Your task to perform on an android device: open the mobile data screen to see how much data has been used Image 0: 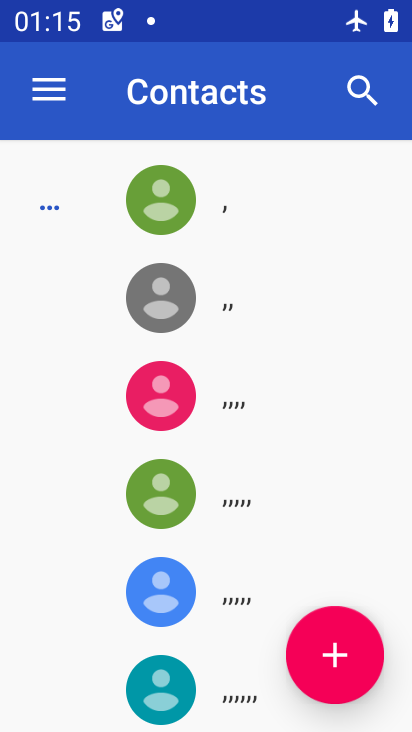
Step 0: press home button
Your task to perform on an android device: open the mobile data screen to see how much data has been used Image 1: 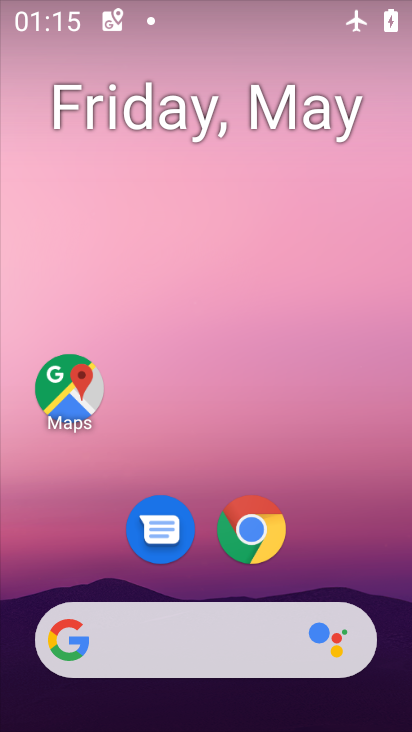
Step 1: drag from (293, 504) to (233, 136)
Your task to perform on an android device: open the mobile data screen to see how much data has been used Image 2: 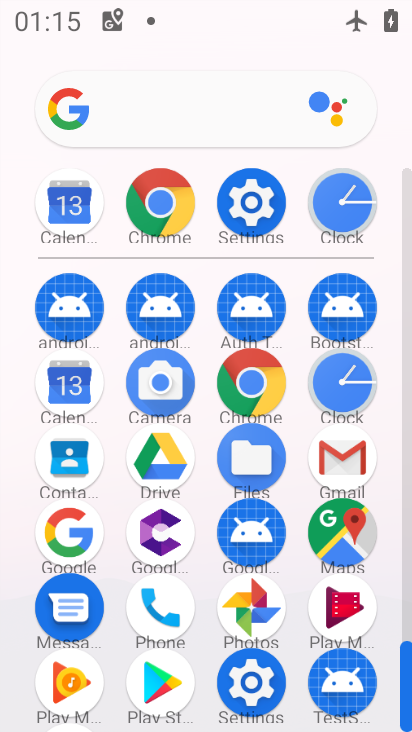
Step 2: click (244, 198)
Your task to perform on an android device: open the mobile data screen to see how much data has been used Image 3: 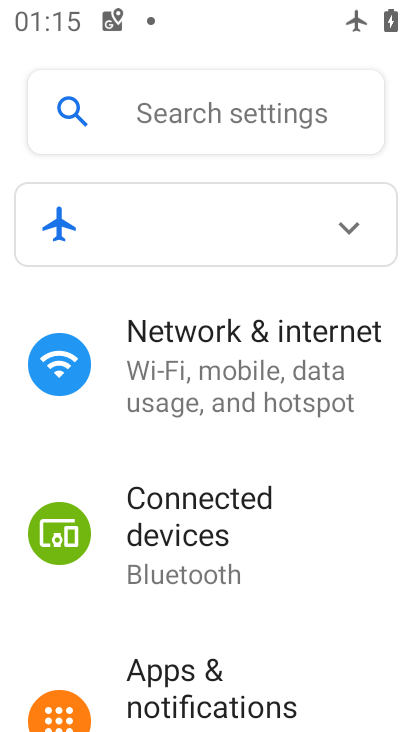
Step 3: click (202, 383)
Your task to perform on an android device: open the mobile data screen to see how much data has been used Image 4: 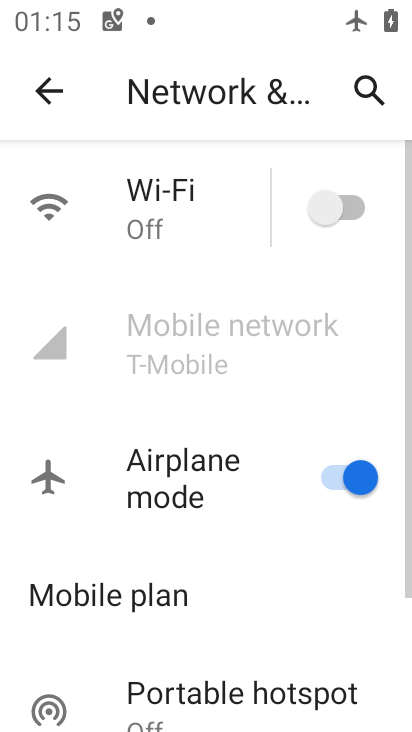
Step 4: task complete